Your task to perform on an android device: change the clock display to digital Image 0: 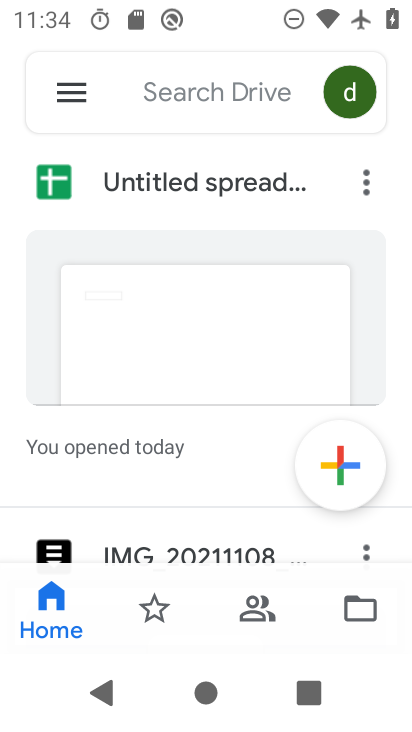
Step 0: press home button
Your task to perform on an android device: change the clock display to digital Image 1: 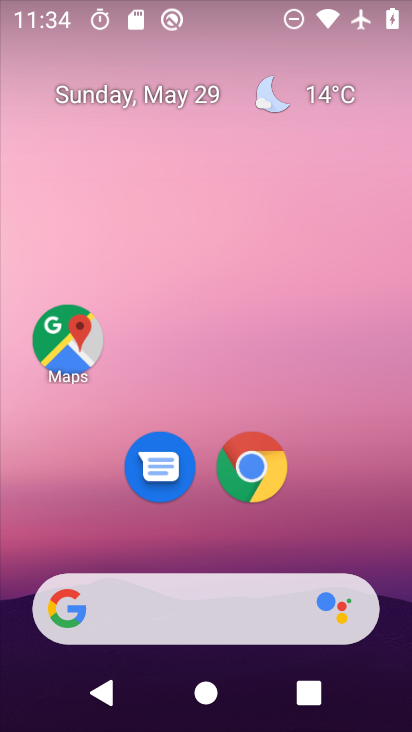
Step 1: drag from (206, 539) to (205, 185)
Your task to perform on an android device: change the clock display to digital Image 2: 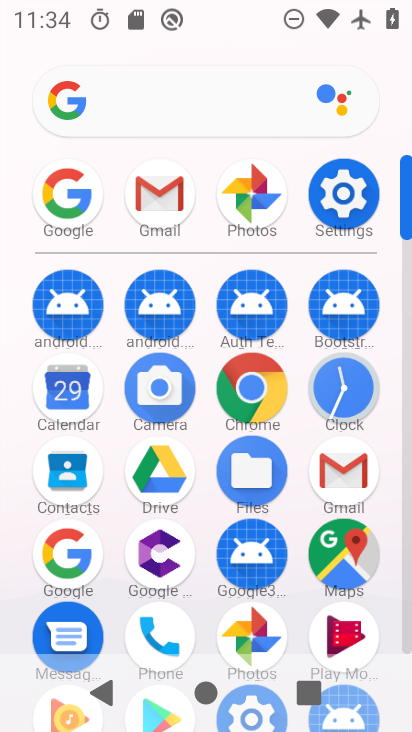
Step 2: click (351, 402)
Your task to perform on an android device: change the clock display to digital Image 3: 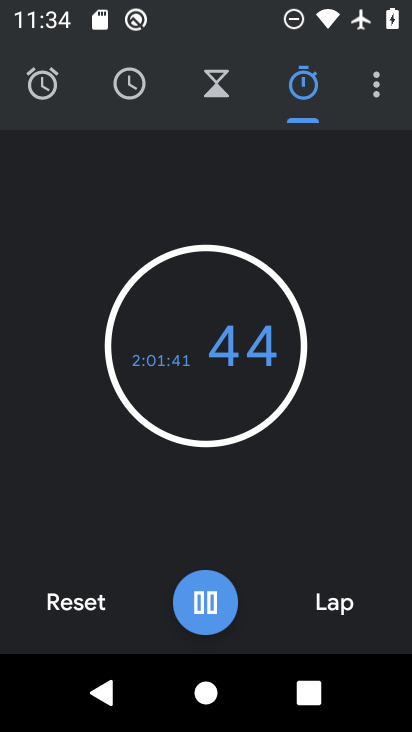
Step 3: click (369, 89)
Your task to perform on an android device: change the clock display to digital Image 4: 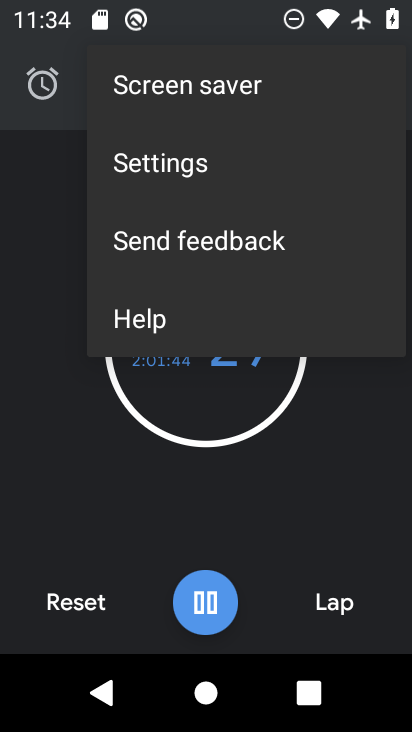
Step 4: click (212, 159)
Your task to perform on an android device: change the clock display to digital Image 5: 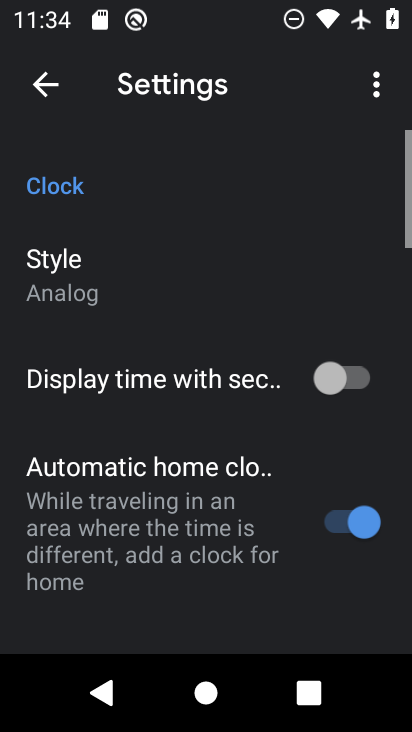
Step 5: click (132, 252)
Your task to perform on an android device: change the clock display to digital Image 6: 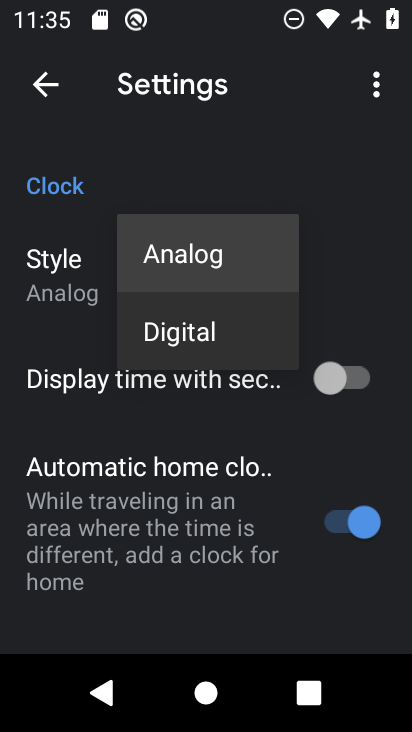
Step 6: click (166, 345)
Your task to perform on an android device: change the clock display to digital Image 7: 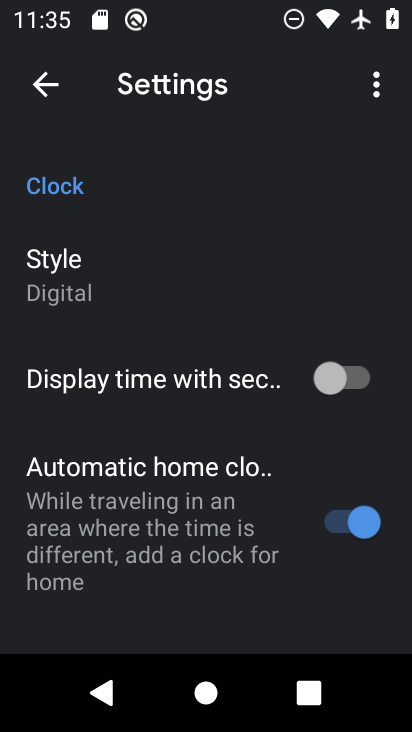
Step 7: task complete